Your task to perform on an android device: open a bookmark in the chrome app Image 0: 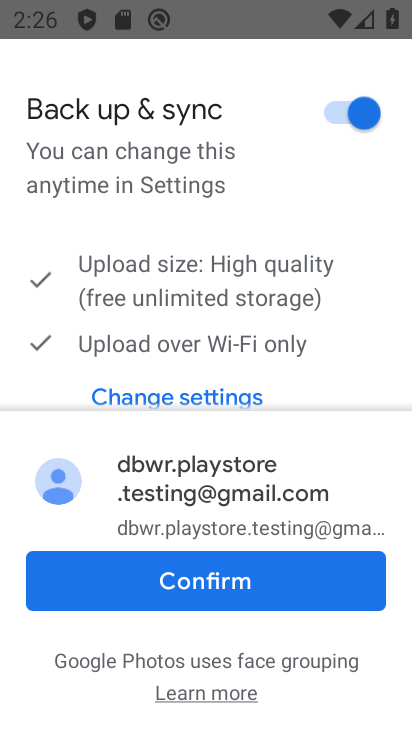
Step 0: press home button
Your task to perform on an android device: open a bookmark in the chrome app Image 1: 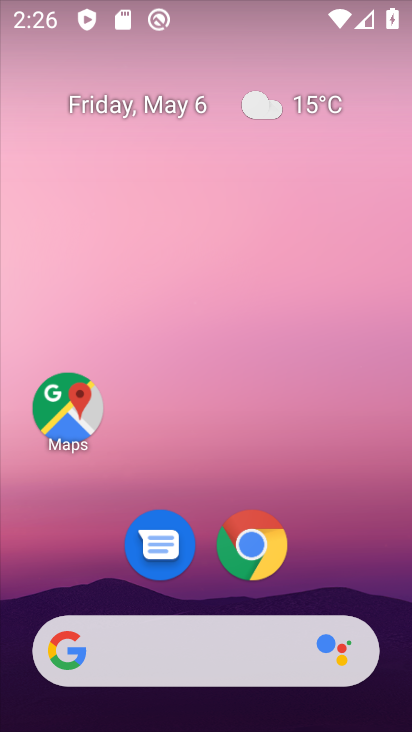
Step 1: click (257, 542)
Your task to perform on an android device: open a bookmark in the chrome app Image 2: 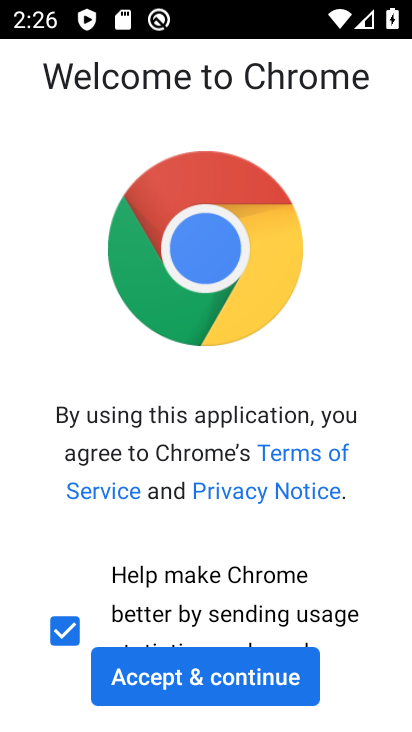
Step 2: click (202, 682)
Your task to perform on an android device: open a bookmark in the chrome app Image 3: 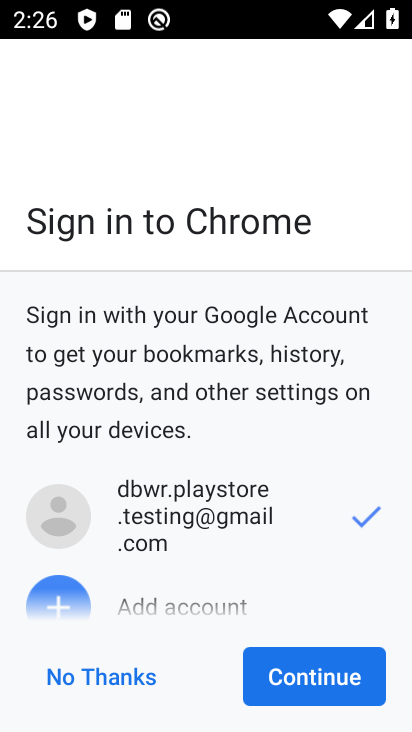
Step 3: click (345, 680)
Your task to perform on an android device: open a bookmark in the chrome app Image 4: 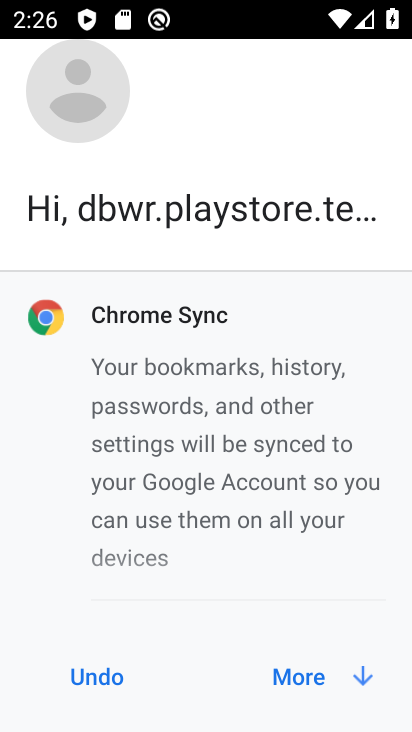
Step 4: click (293, 670)
Your task to perform on an android device: open a bookmark in the chrome app Image 5: 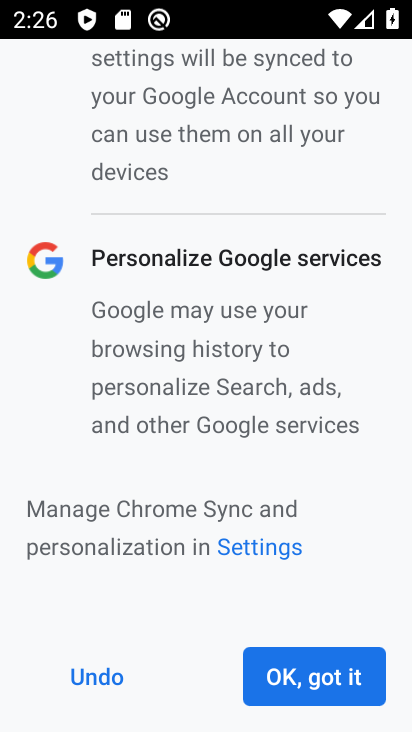
Step 5: click (293, 670)
Your task to perform on an android device: open a bookmark in the chrome app Image 6: 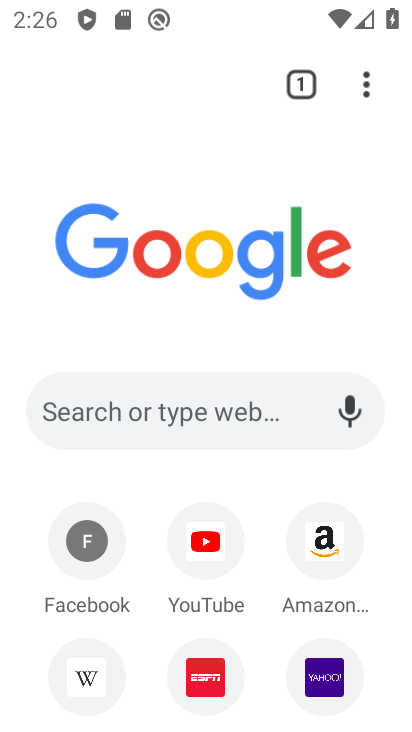
Step 6: click (366, 91)
Your task to perform on an android device: open a bookmark in the chrome app Image 7: 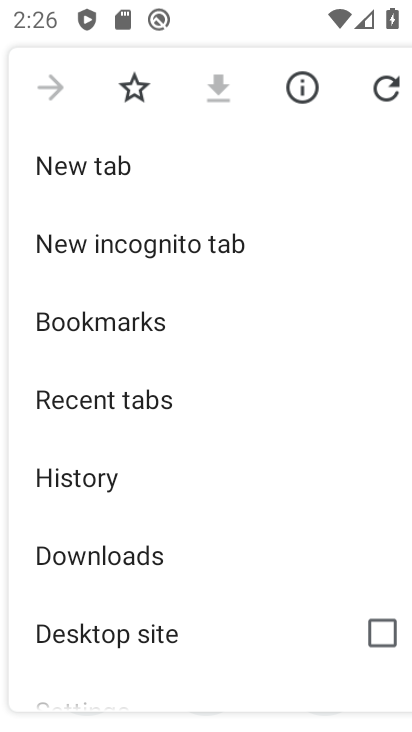
Step 7: click (104, 320)
Your task to perform on an android device: open a bookmark in the chrome app Image 8: 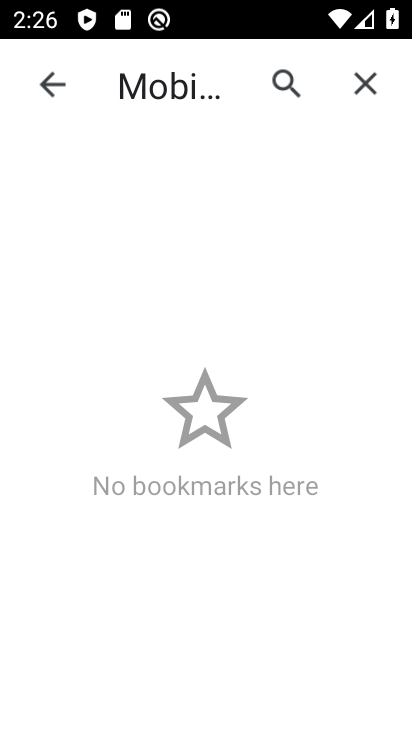
Step 8: task complete